Your task to perform on an android device: toggle translation in the chrome app Image 0: 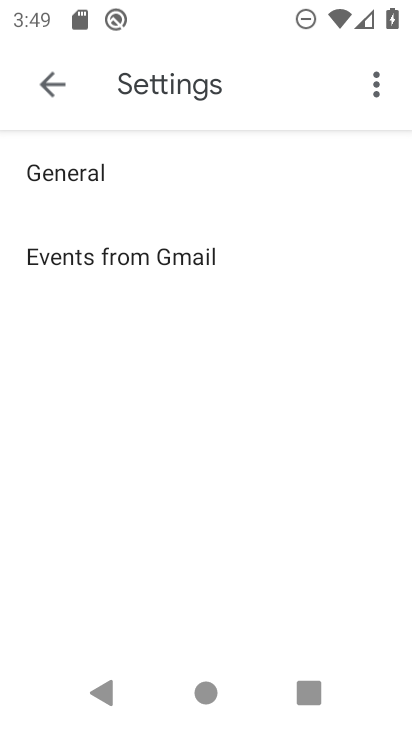
Step 0: press home button
Your task to perform on an android device: toggle translation in the chrome app Image 1: 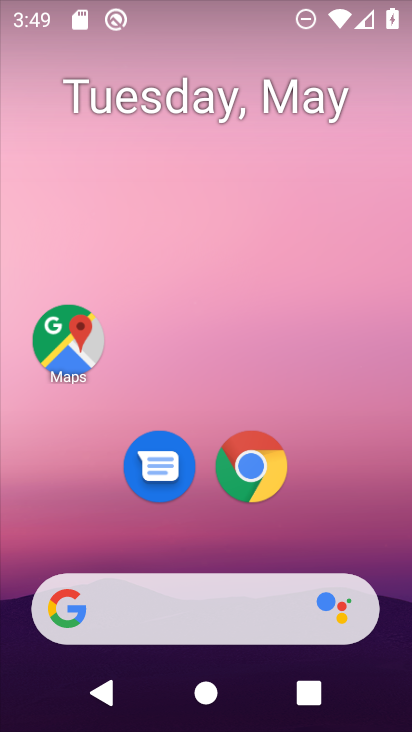
Step 1: click (259, 465)
Your task to perform on an android device: toggle translation in the chrome app Image 2: 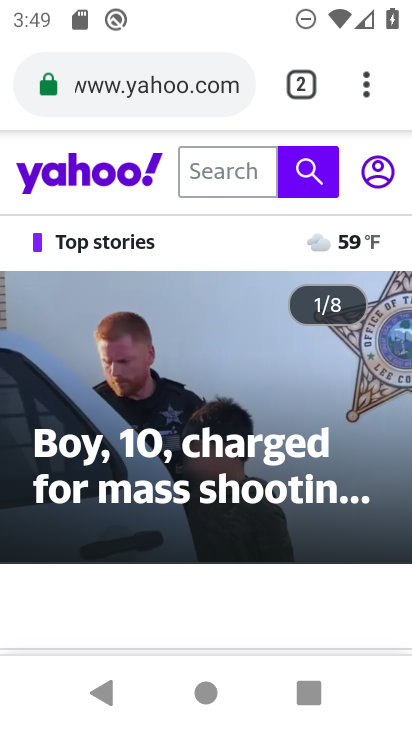
Step 2: click (364, 83)
Your task to perform on an android device: toggle translation in the chrome app Image 3: 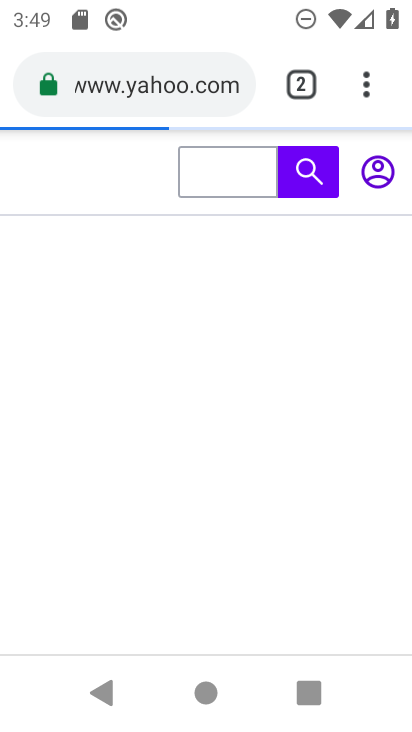
Step 3: drag from (364, 83) to (164, 524)
Your task to perform on an android device: toggle translation in the chrome app Image 4: 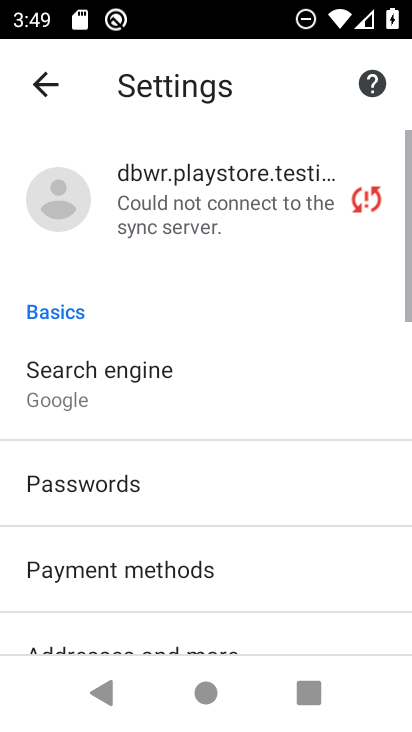
Step 4: drag from (300, 587) to (313, 289)
Your task to perform on an android device: toggle translation in the chrome app Image 5: 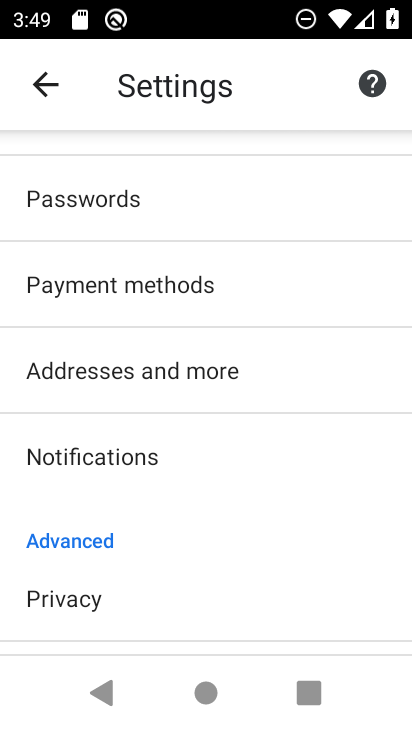
Step 5: drag from (199, 579) to (261, 257)
Your task to perform on an android device: toggle translation in the chrome app Image 6: 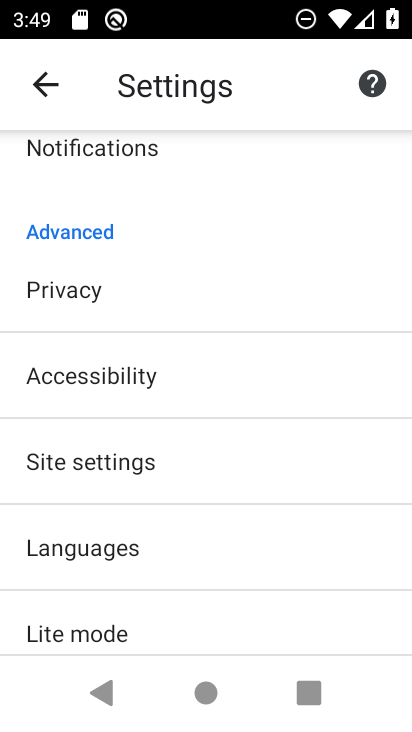
Step 6: click (115, 540)
Your task to perform on an android device: toggle translation in the chrome app Image 7: 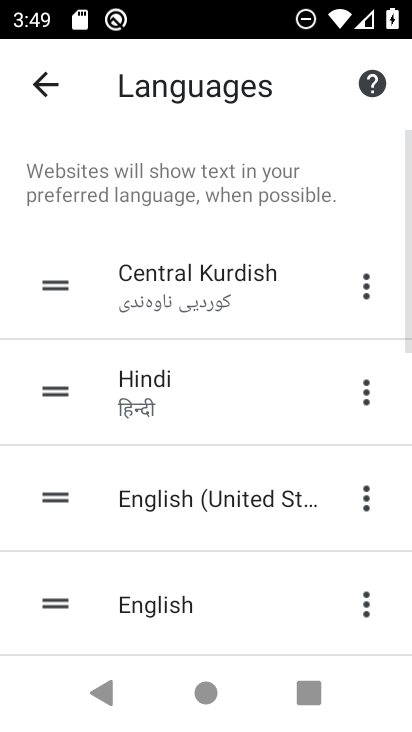
Step 7: drag from (256, 577) to (287, 181)
Your task to perform on an android device: toggle translation in the chrome app Image 8: 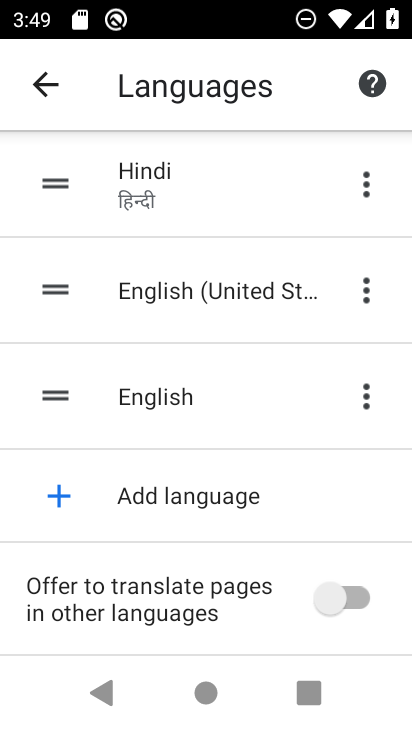
Step 8: click (344, 594)
Your task to perform on an android device: toggle translation in the chrome app Image 9: 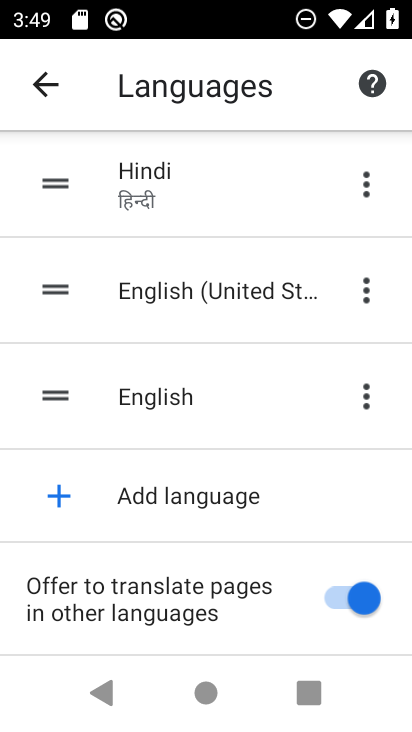
Step 9: task complete